Your task to perform on an android device: set an alarm Image 0: 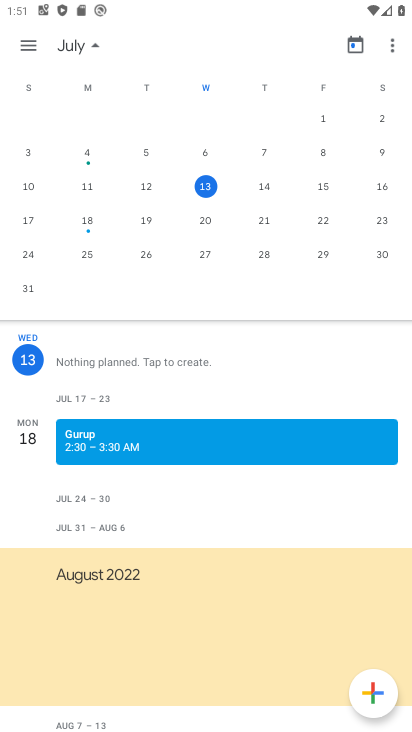
Step 0: press home button
Your task to perform on an android device: set an alarm Image 1: 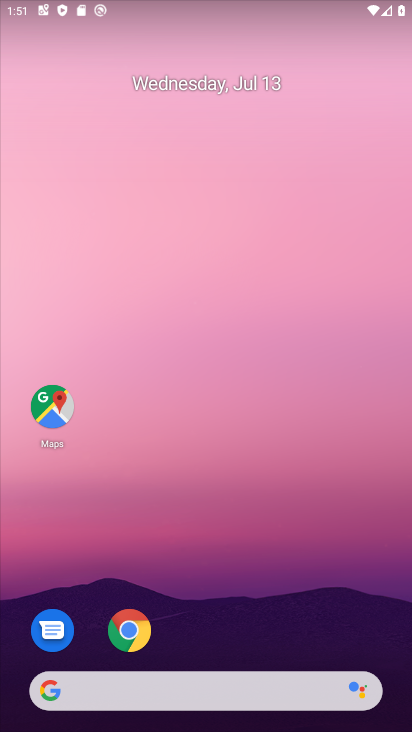
Step 1: drag from (354, 596) to (384, 170)
Your task to perform on an android device: set an alarm Image 2: 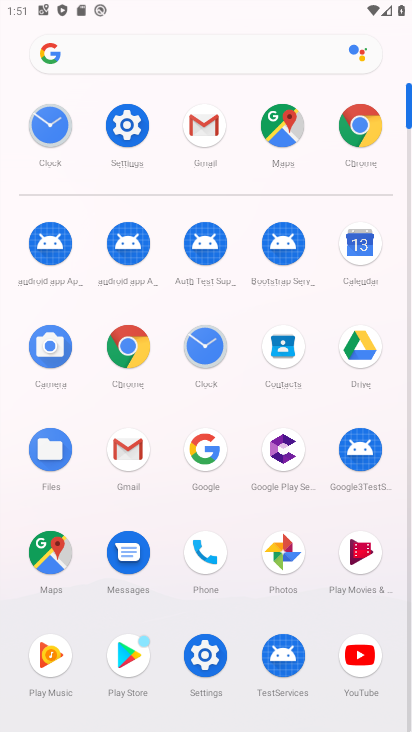
Step 2: click (215, 346)
Your task to perform on an android device: set an alarm Image 3: 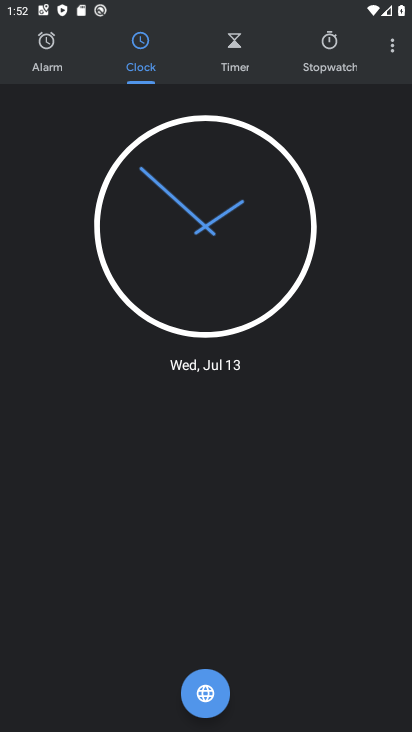
Step 3: click (46, 57)
Your task to perform on an android device: set an alarm Image 4: 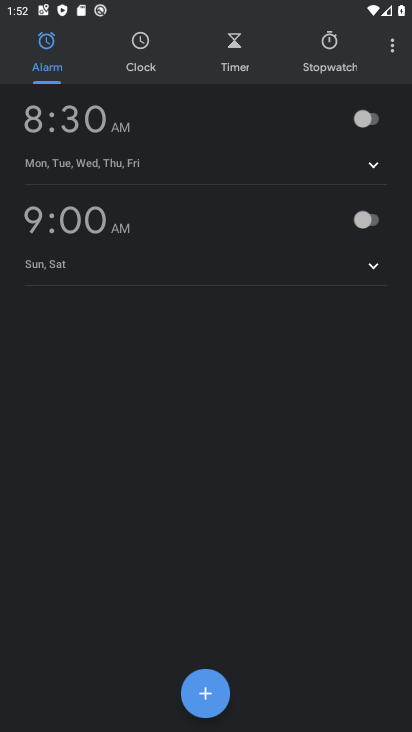
Step 4: click (208, 693)
Your task to perform on an android device: set an alarm Image 5: 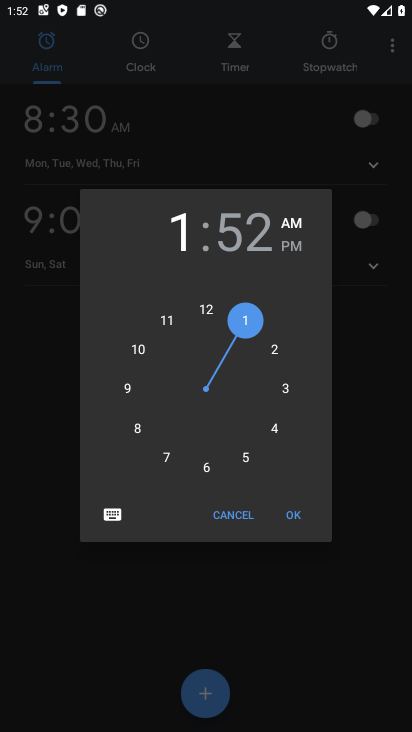
Step 5: click (299, 515)
Your task to perform on an android device: set an alarm Image 6: 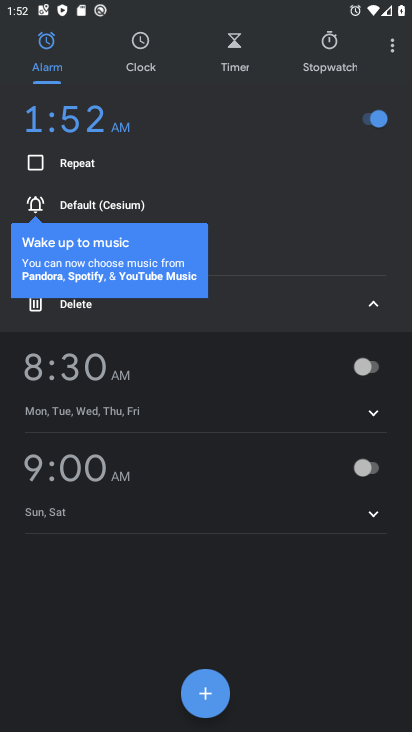
Step 6: task complete